Your task to perform on an android device: open chrome and create a bookmark for the current page Image 0: 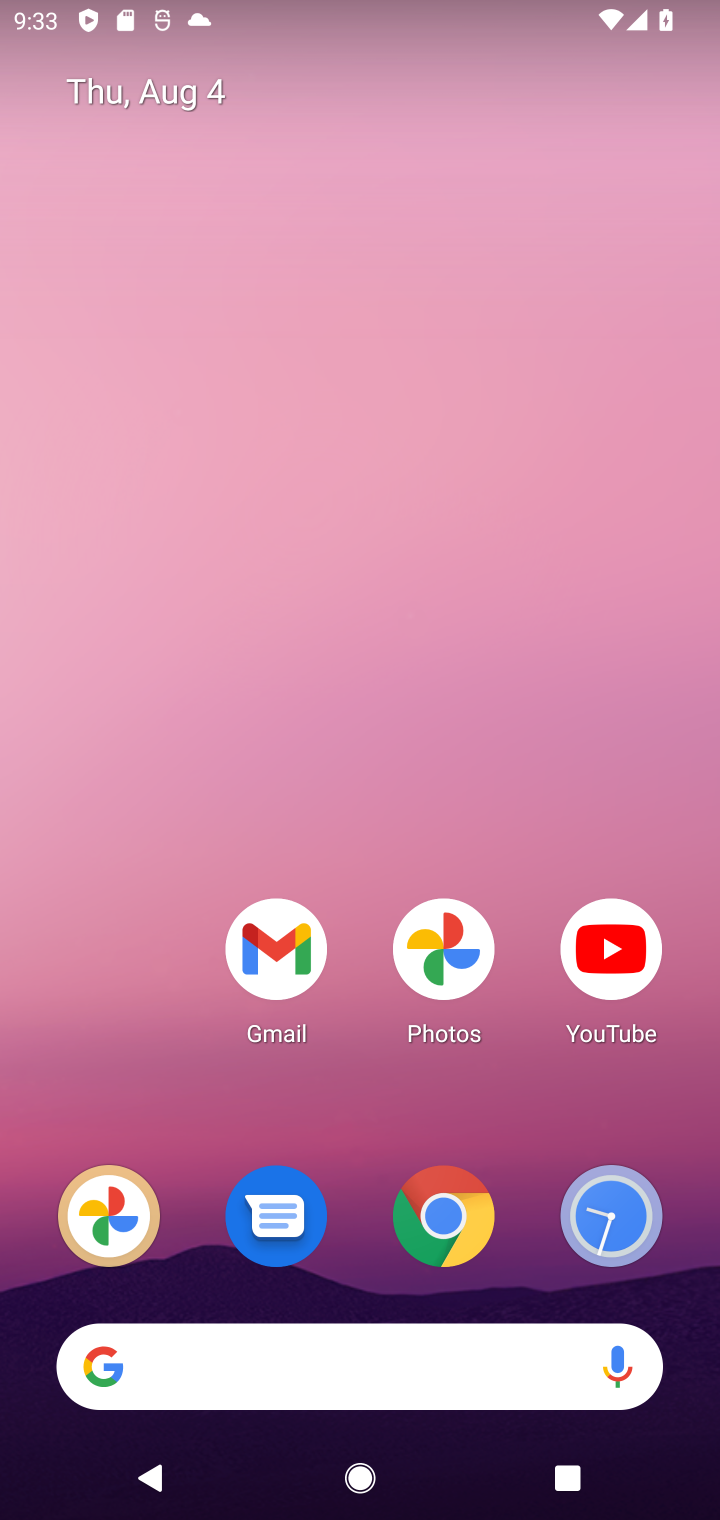
Step 0: click (447, 1216)
Your task to perform on an android device: open chrome and create a bookmark for the current page Image 1: 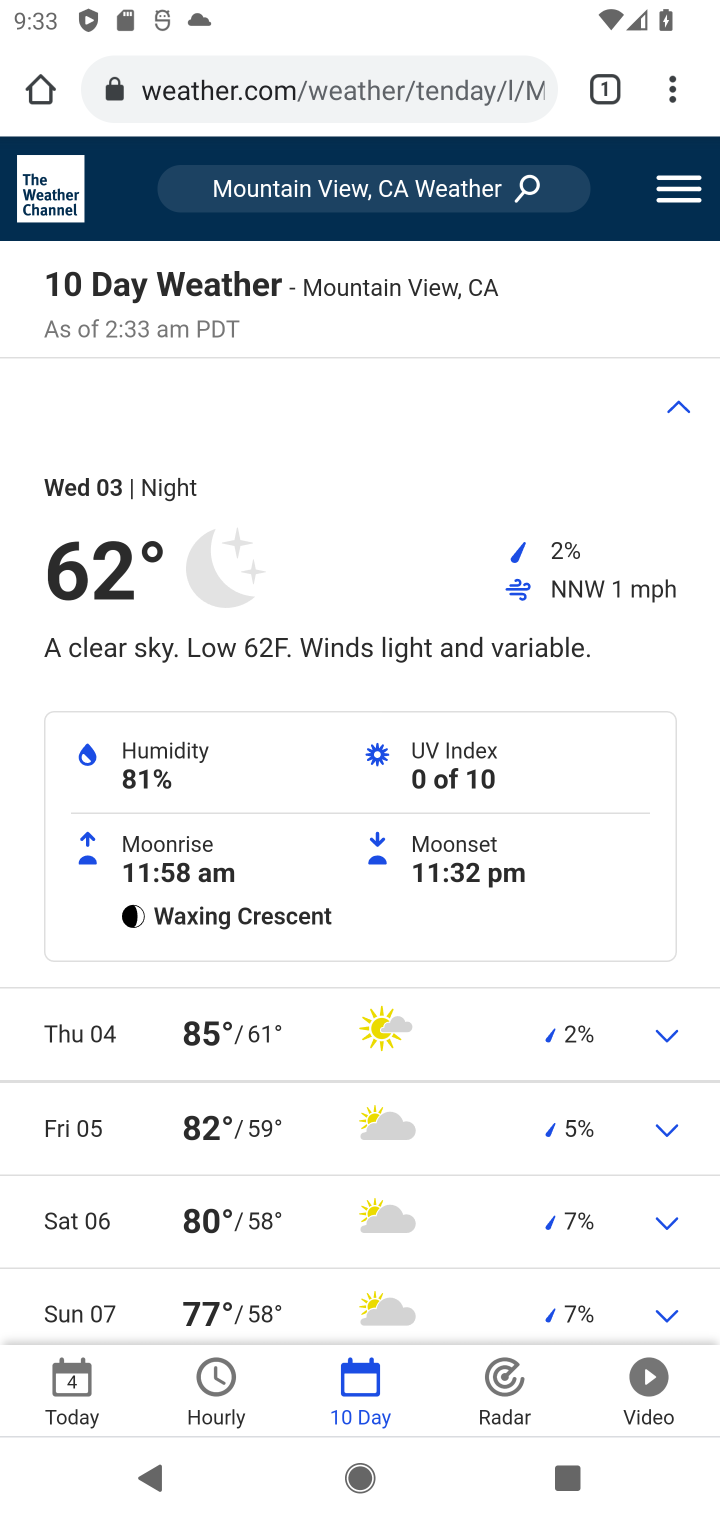
Step 1: click (670, 88)
Your task to perform on an android device: open chrome and create a bookmark for the current page Image 2: 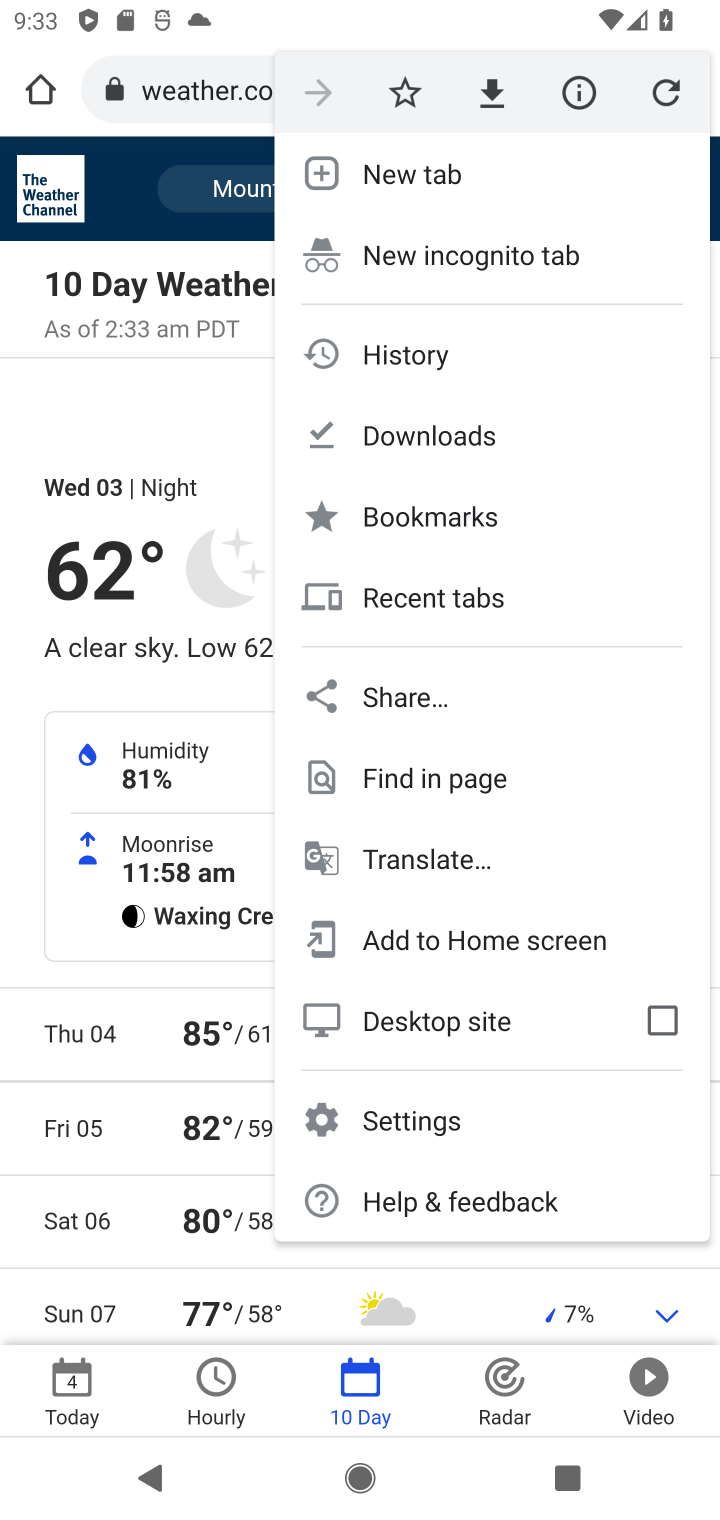
Step 2: click (404, 95)
Your task to perform on an android device: open chrome and create a bookmark for the current page Image 3: 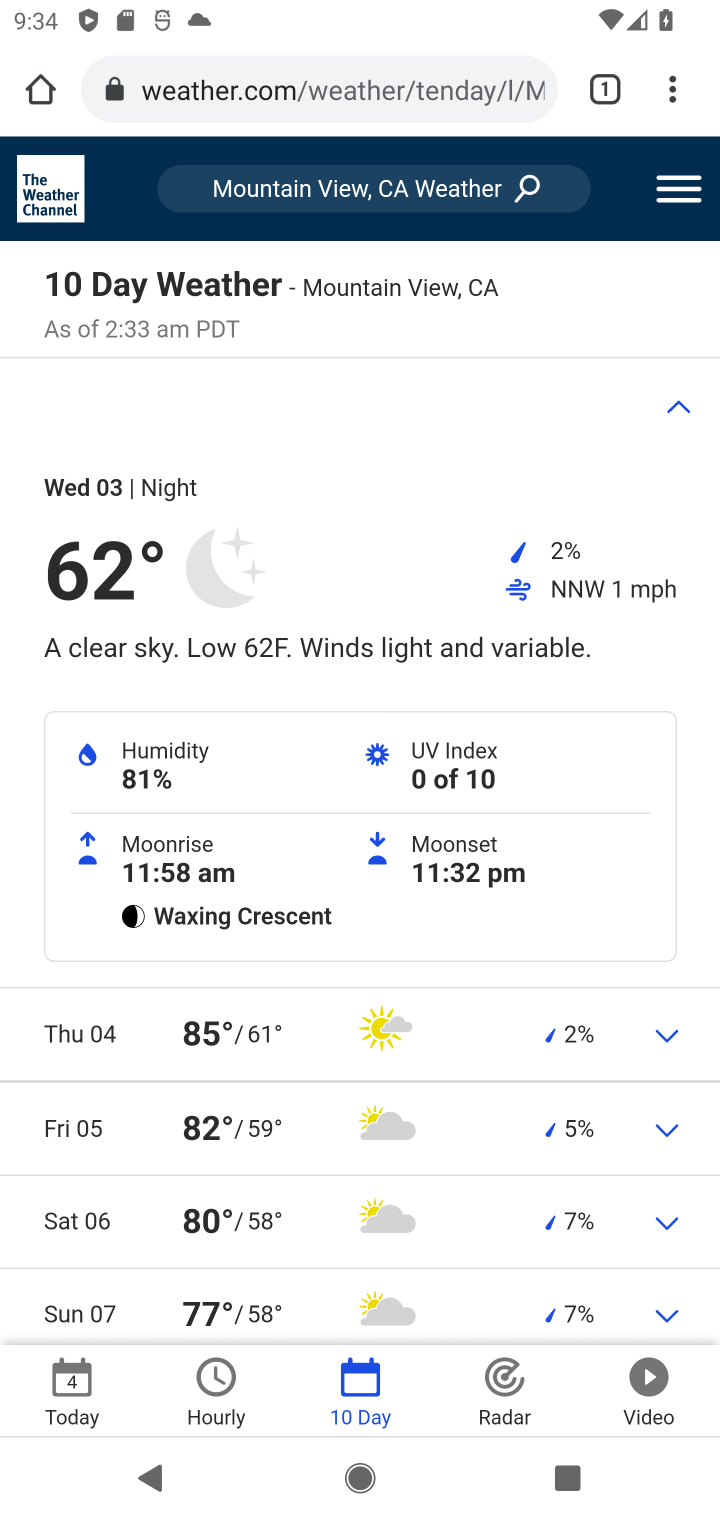
Step 3: task complete